Your task to perform on an android device: Go to battery settings Image 0: 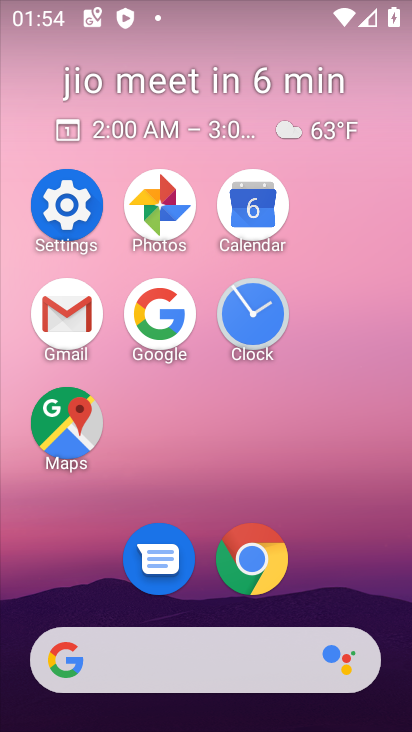
Step 0: click (71, 176)
Your task to perform on an android device: Go to battery settings Image 1: 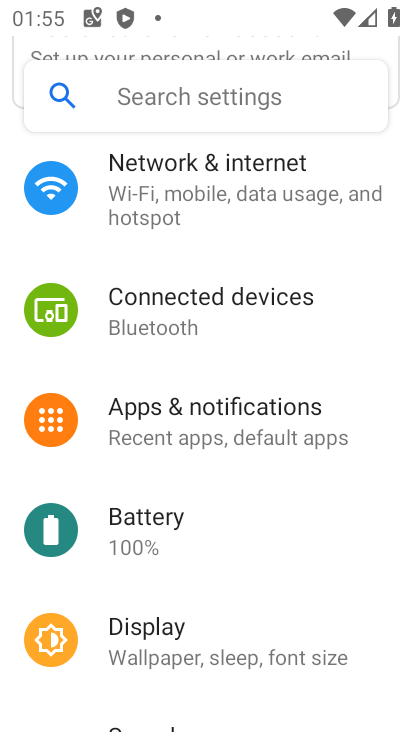
Step 1: click (140, 521)
Your task to perform on an android device: Go to battery settings Image 2: 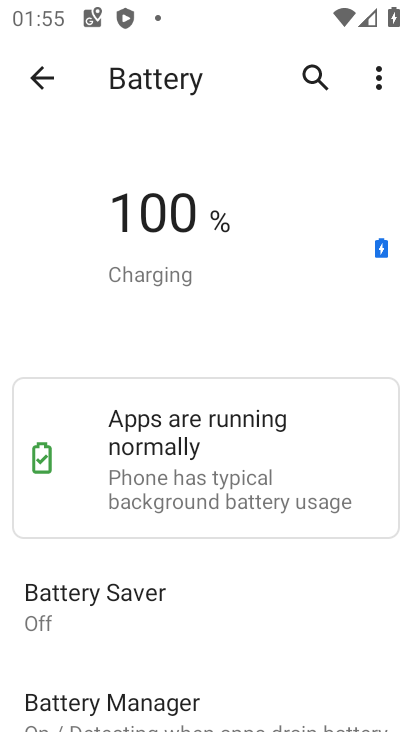
Step 2: task complete